Your task to perform on an android device: empty trash in the gmail app Image 0: 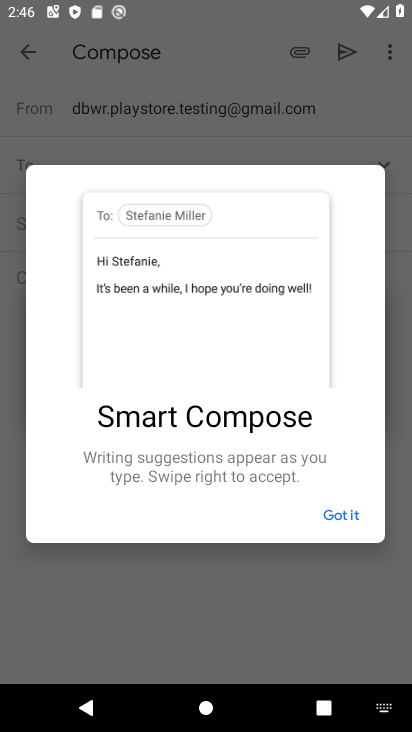
Step 0: press home button
Your task to perform on an android device: empty trash in the gmail app Image 1: 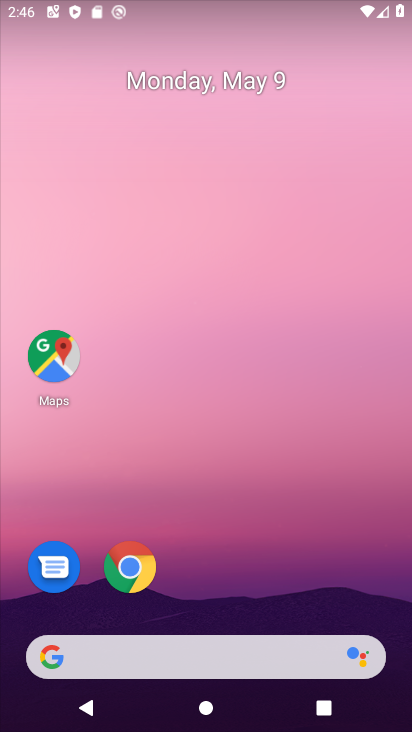
Step 1: drag from (227, 535) to (223, 30)
Your task to perform on an android device: empty trash in the gmail app Image 2: 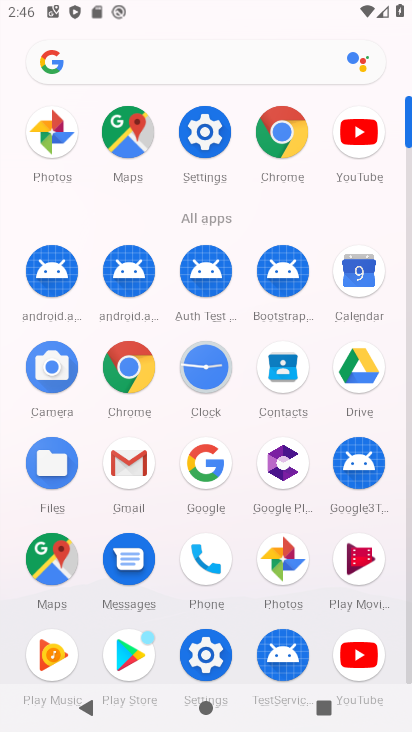
Step 2: click (137, 473)
Your task to perform on an android device: empty trash in the gmail app Image 3: 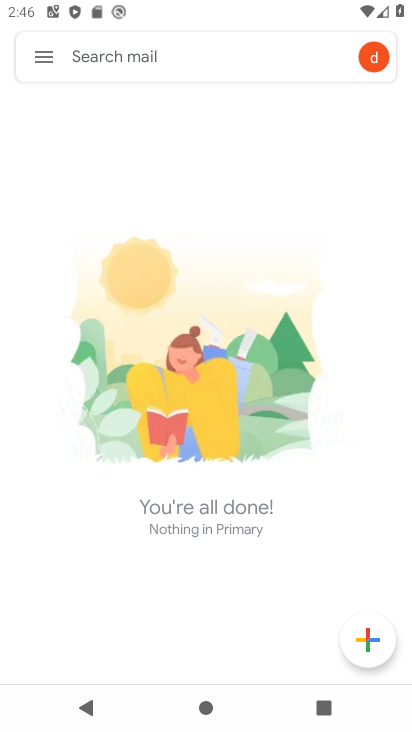
Step 3: click (153, 72)
Your task to perform on an android device: empty trash in the gmail app Image 4: 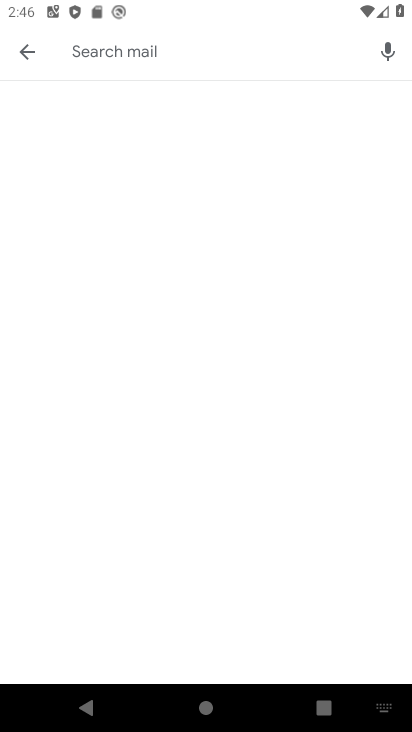
Step 4: click (24, 44)
Your task to perform on an android device: empty trash in the gmail app Image 5: 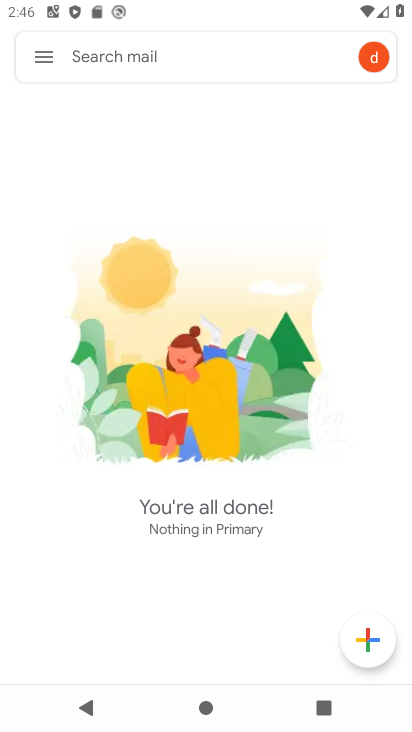
Step 5: click (35, 54)
Your task to perform on an android device: empty trash in the gmail app Image 6: 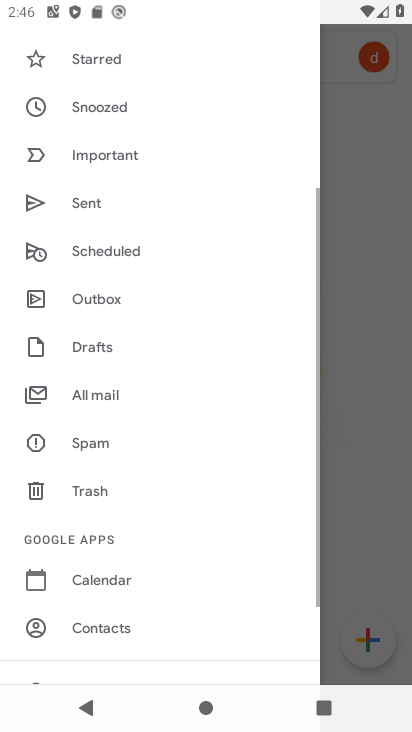
Step 6: click (115, 493)
Your task to perform on an android device: empty trash in the gmail app Image 7: 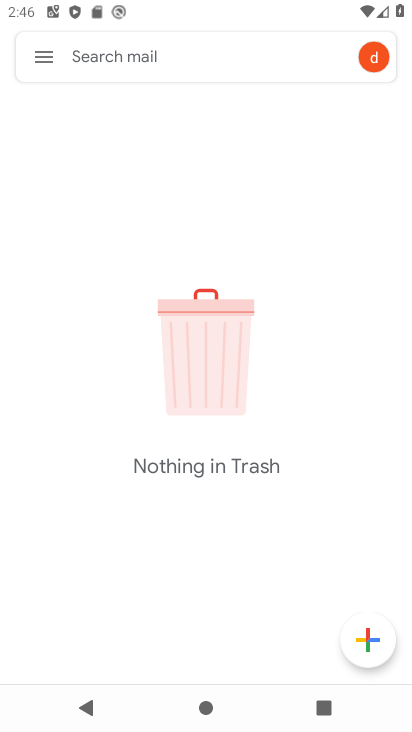
Step 7: task complete